Your task to perform on an android device: Open Chrome and go to settings Image 0: 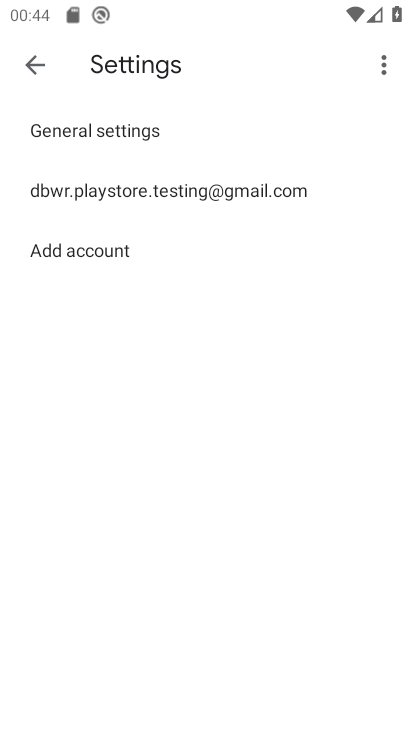
Step 0: press home button
Your task to perform on an android device: Open Chrome and go to settings Image 1: 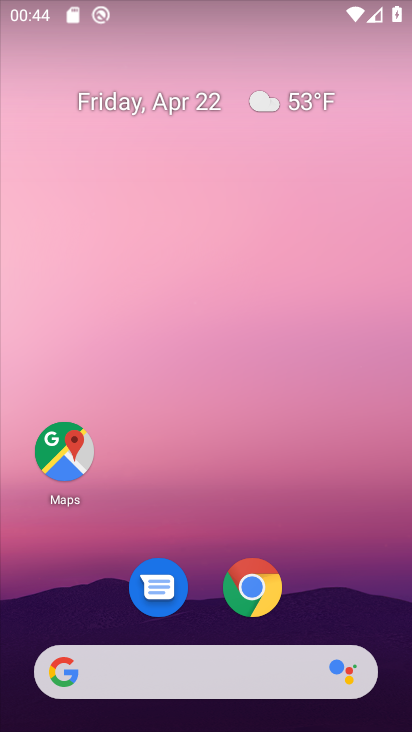
Step 1: click (252, 591)
Your task to perform on an android device: Open Chrome and go to settings Image 2: 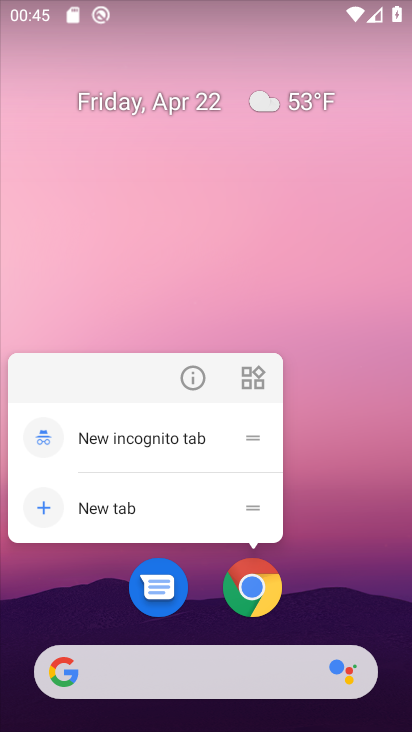
Step 2: click (244, 584)
Your task to perform on an android device: Open Chrome and go to settings Image 3: 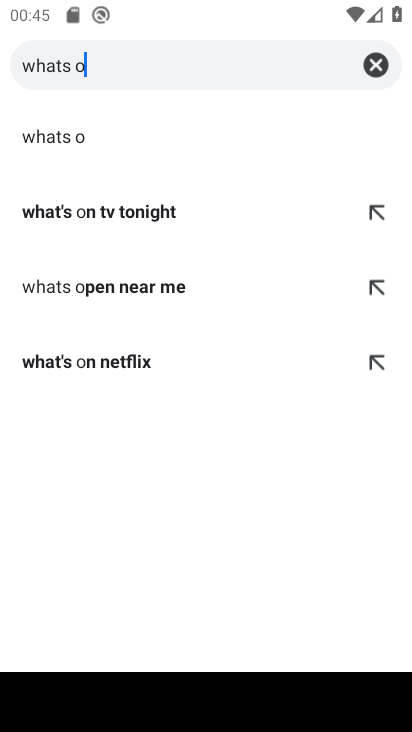
Step 3: click (373, 57)
Your task to perform on an android device: Open Chrome and go to settings Image 4: 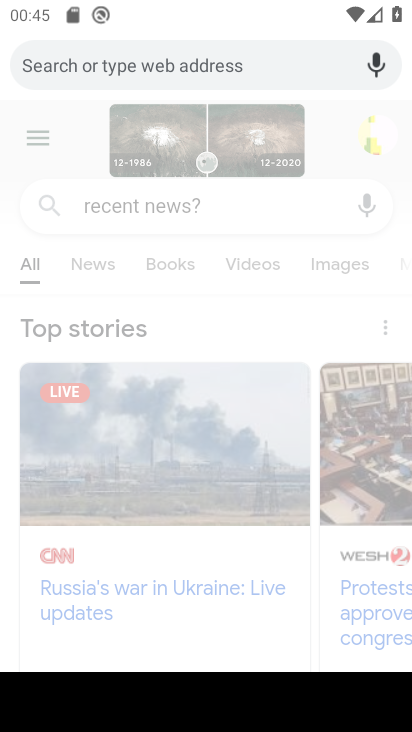
Step 4: task complete